Your task to perform on an android device: Go to Wikipedia Image 0: 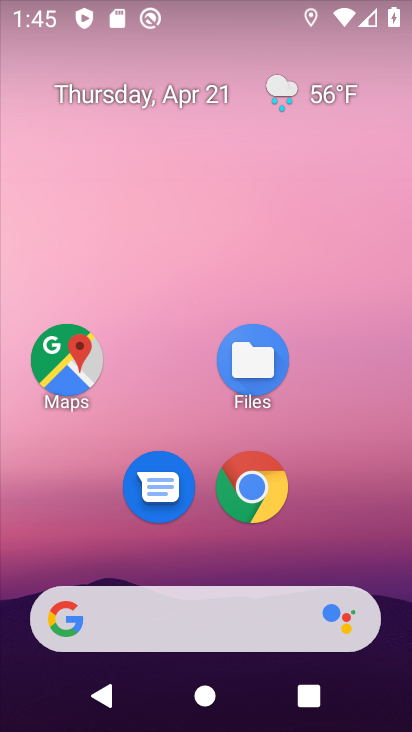
Step 0: drag from (361, 537) to (375, 118)
Your task to perform on an android device: Go to Wikipedia Image 1: 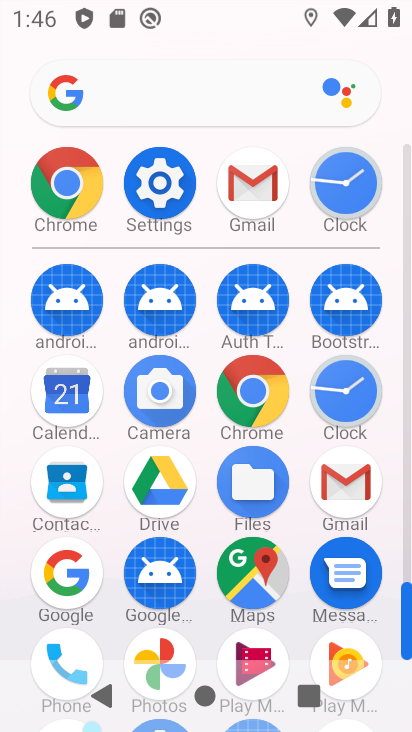
Step 1: drag from (299, 612) to (309, 353)
Your task to perform on an android device: Go to Wikipedia Image 2: 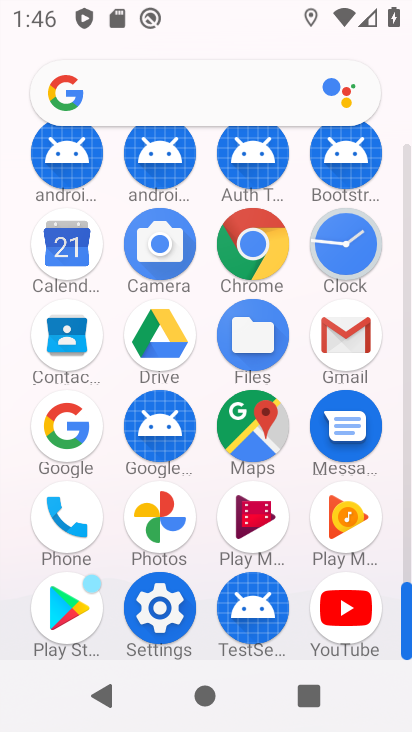
Step 2: click (245, 255)
Your task to perform on an android device: Go to Wikipedia Image 3: 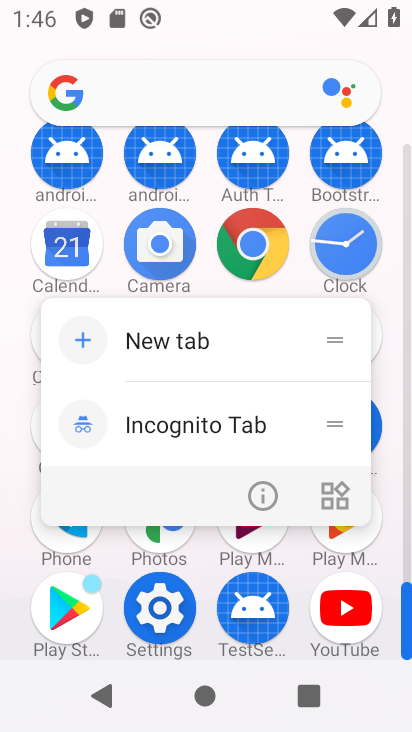
Step 3: click (248, 273)
Your task to perform on an android device: Go to Wikipedia Image 4: 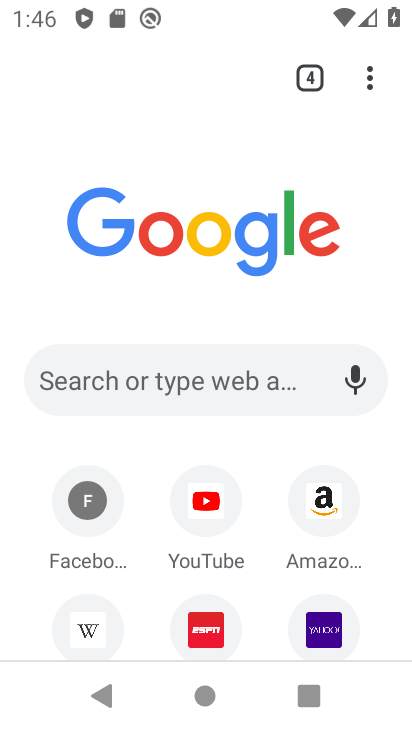
Step 4: click (73, 631)
Your task to perform on an android device: Go to Wikipedia Image 5: 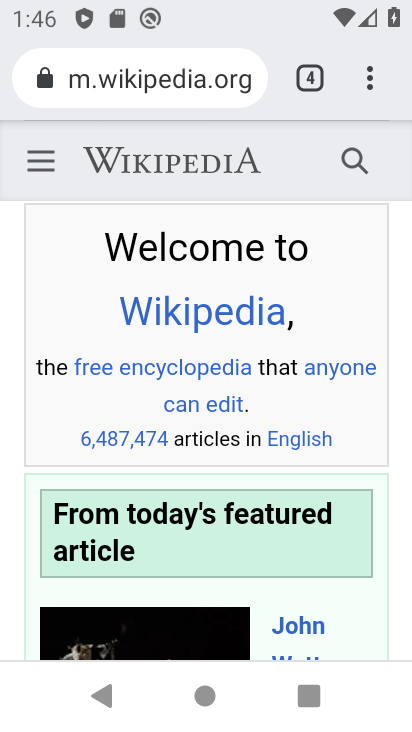
Step 5: task complete